Your task to perform on an android device: Go to calendar. Show me events next week Image 0: 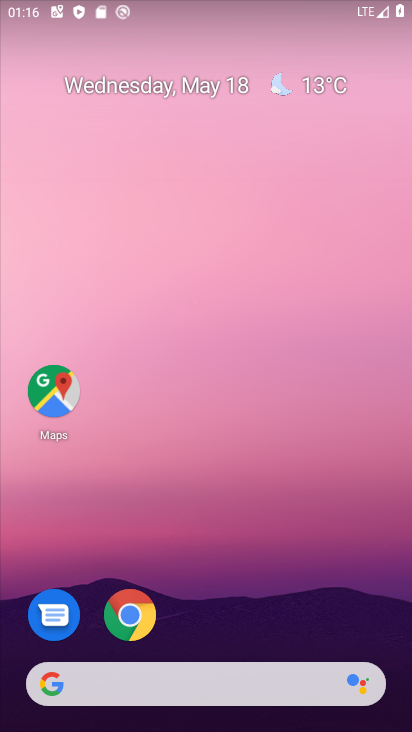
Step 0: press home button
Your task to perform on an android device: Go to calendar. Show me events next week Image 1: 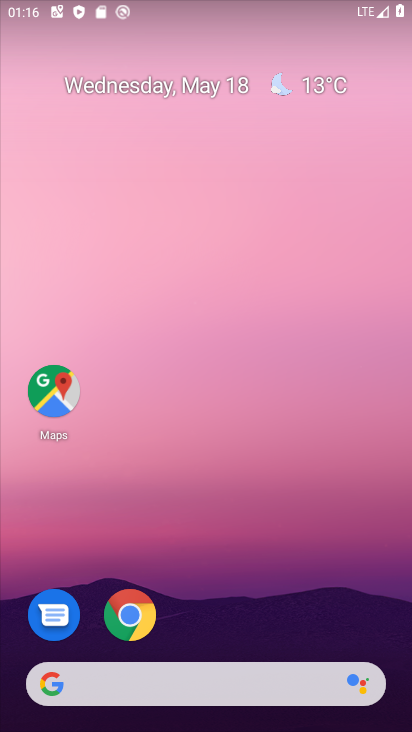
Step 1: drag from (148, 685) to (279, 163)
Your task to perform on an android device: Go to calendar. Show me events next week Image 2: 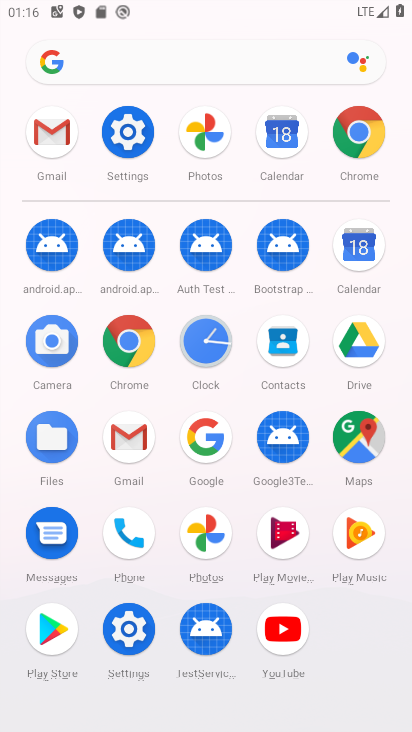
Step 2: click (360, 258)
Your task to perform on an android device: Go to calendar. Show me events next week Image 3: 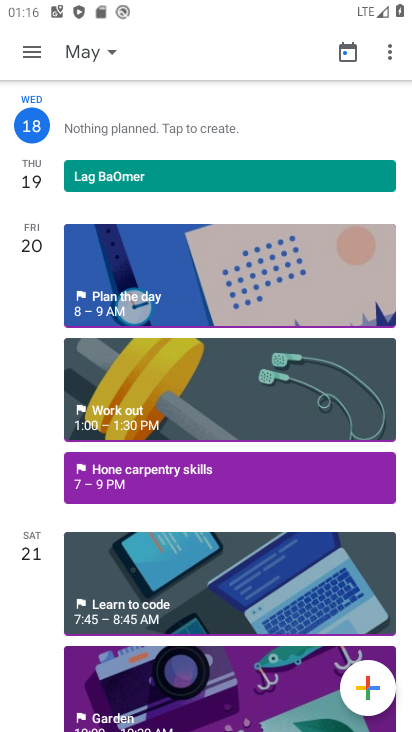
Step 3: click (84, 53)
Your task to perform on an android device: Go to calendar. Show me events next week Image 4: 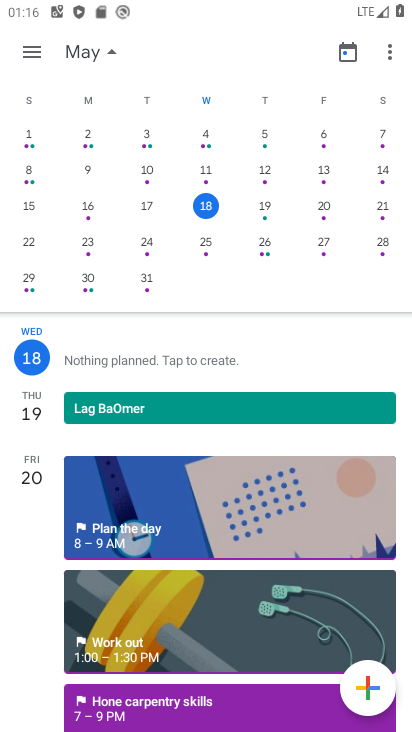
Step 4: click (30, 246)
Your task to perform on an android device: Go to calendar. Show me events next week Image 5: 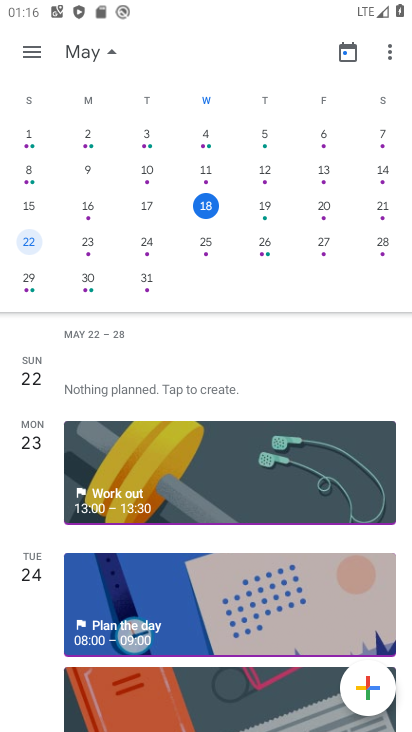
Step 5: click (36, 48)
Your task to perform on an android device: Go to calendar. Show me events next week Image 6: 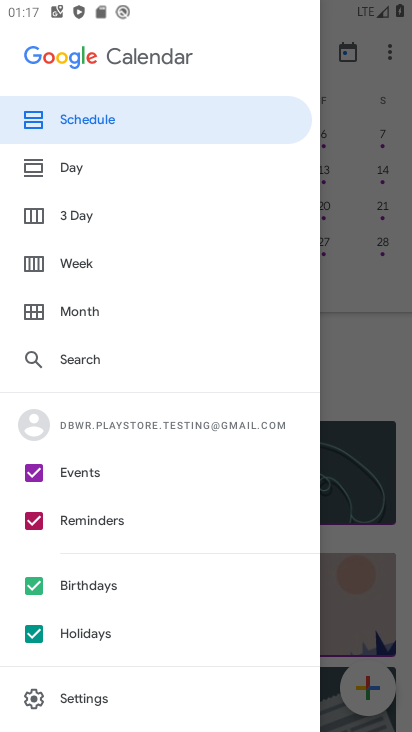
Step 6: click (86, 264)
Your task to perform on an android device: Go to calendar. Show me events next week Image 7: 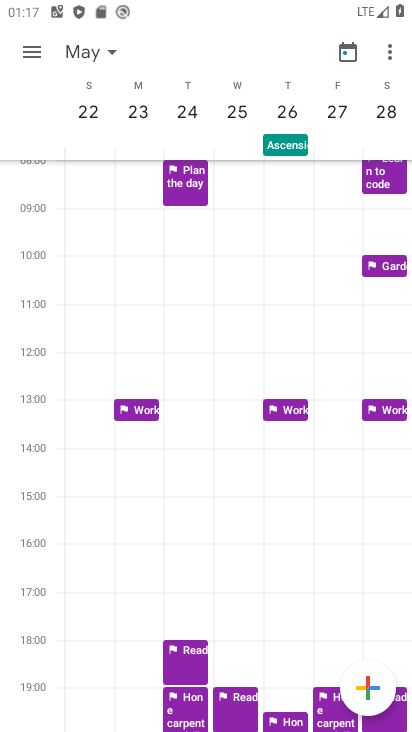
Step 7: click (33, 52)
Your task to perform on an android device: Go to calendar. Show me events next week Image 8: 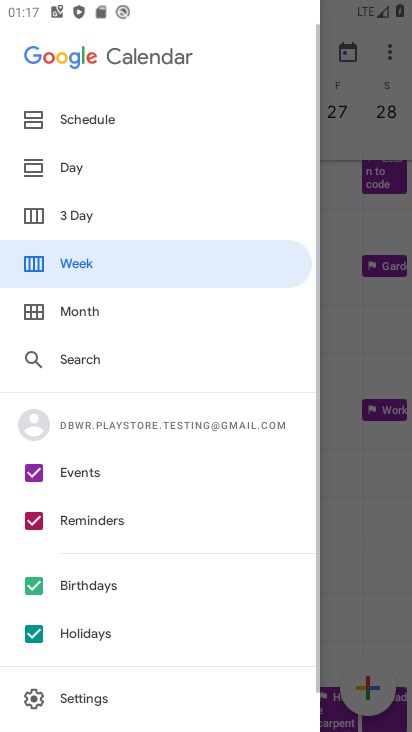
Step 8: click (102, 120)
Your task to perform on an android device: Go to calendar. Show me events next week Image 9: 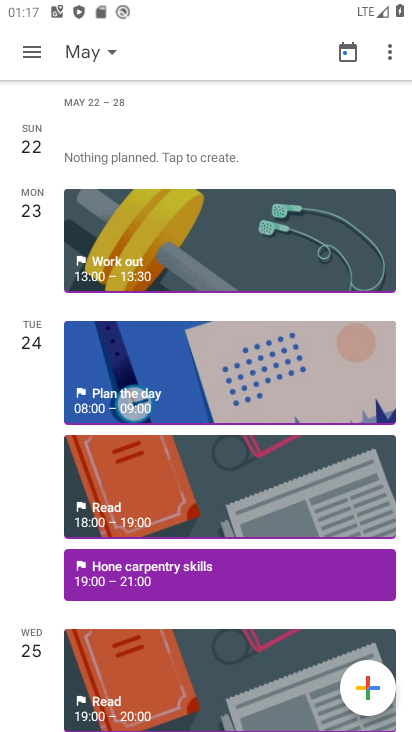
Step 9: click (172, 571)
Your task to perform on an android device: Go to calendar. Show me events next week Image 10: 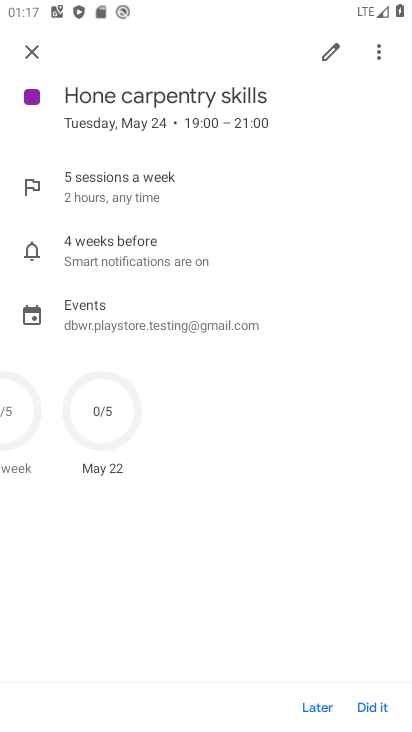
Step 10: click (27, 47)
Your task to perform on an android device: Go to calendar. Show me events next week Image 11: 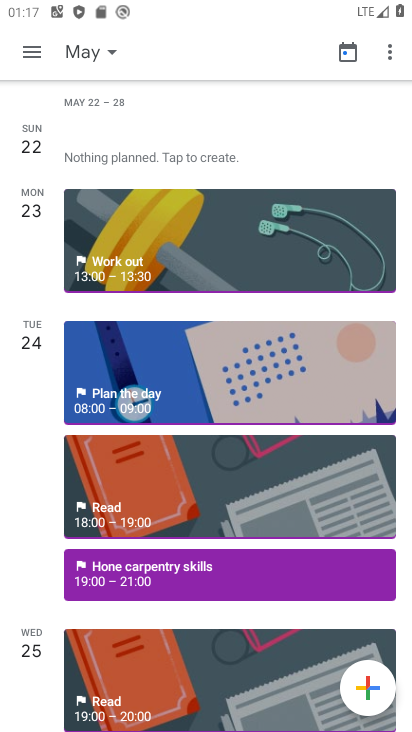
Step 11: task complete